Your task to perform on an android device: install app "Spotify: Music and Podcasts" Image 0: 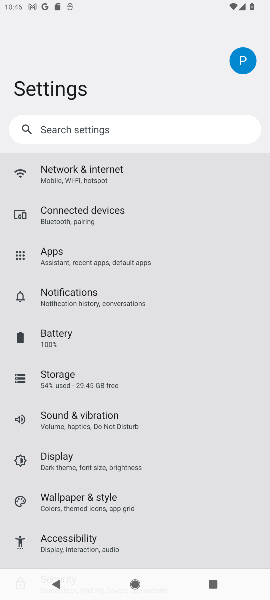
Step 0: press home button
Your task to perform on an android device: install app "Spotify: Music and Podcasts" Image 1: 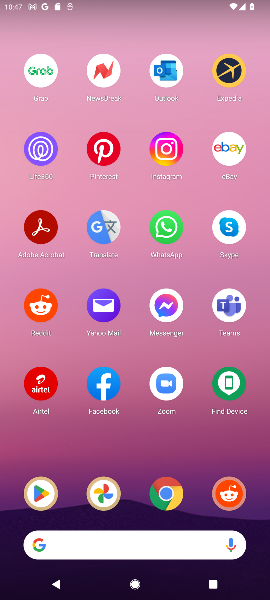
Step 1: click (53, 486)
Your task to perform on an android device: install app "Spotify: Music and Podcasts" Image 2: 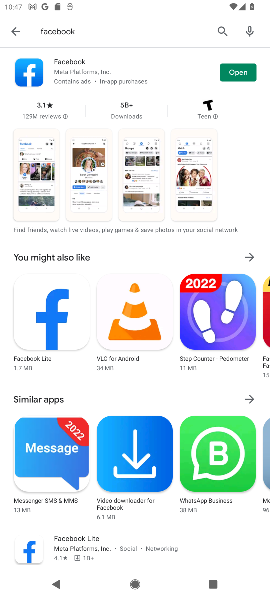
Step 2: click (209, 19)
Your task to perform on an android device: install app "Spotify: Music and Podcasts" Image 3: 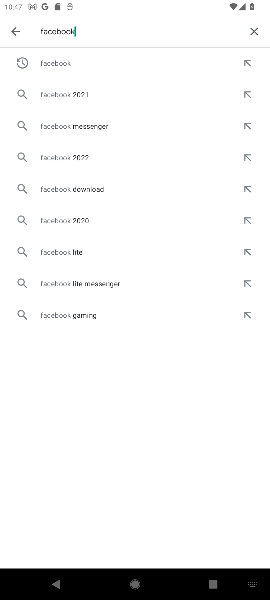
Step 3: click (242, 26)
Your task to perform on an android device: install app "Spotify: Music and Podcasts" Image 4: 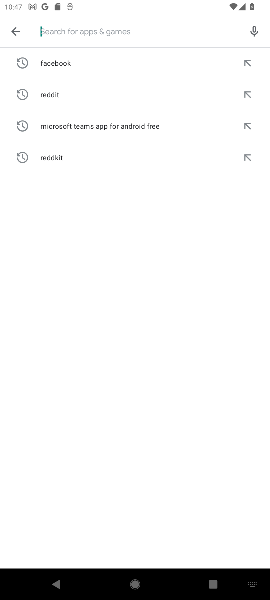
Step 4: type "spotfy"
Your task to perform on an android device: install app "Spotify: Music and Podcasts" Image 5: 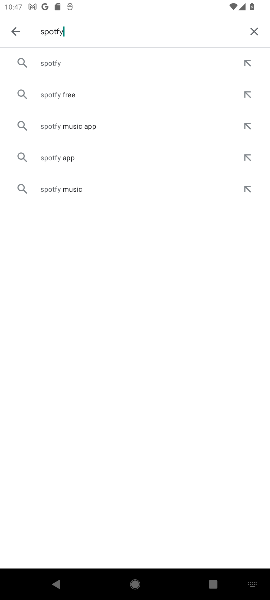
Step 5: click (98, 69)
Your task to perform on an android device: install app "Spotify: Music and Podcasts" Image 6: 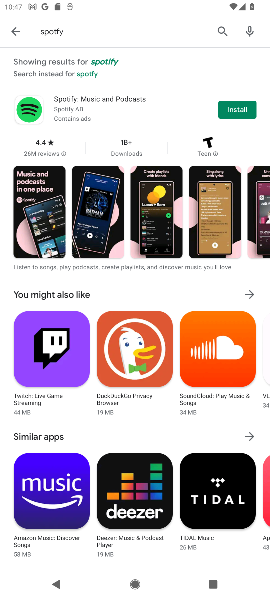
Step 6: click (234, 113)
Your task to perform on an android device: install app "Spotify: Music and Podcasts" Image 7: 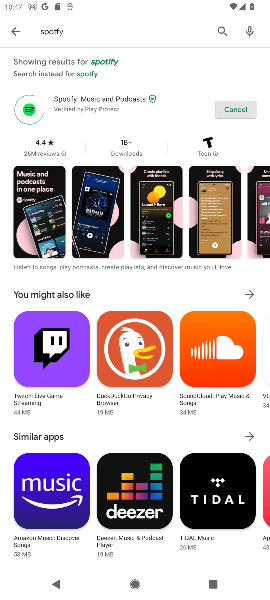
Step 7: task complete